Your task to perform on an android device: change your default location settings in chrome Image 0: 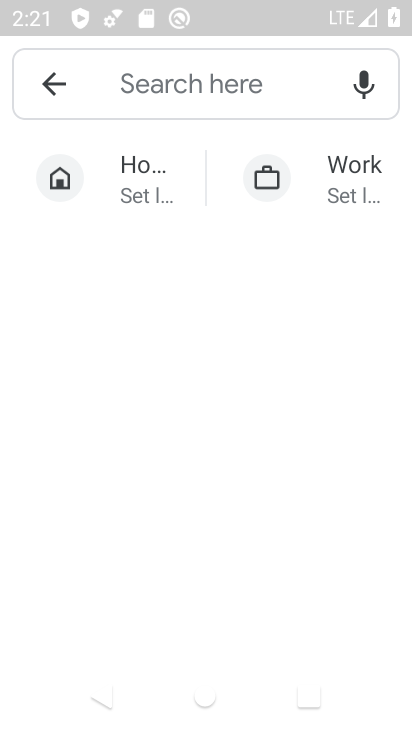
Step 0: press home button
Your task to perform on an android device: change your default location settings in chrome Image 1: 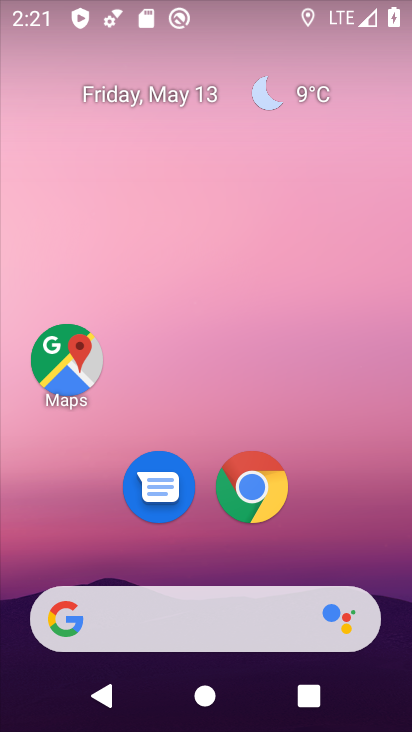
Step 1: drag from (213, 549) to (212, 105)
Your task to perform on an android device: change your default location settings in chrome Image 2: 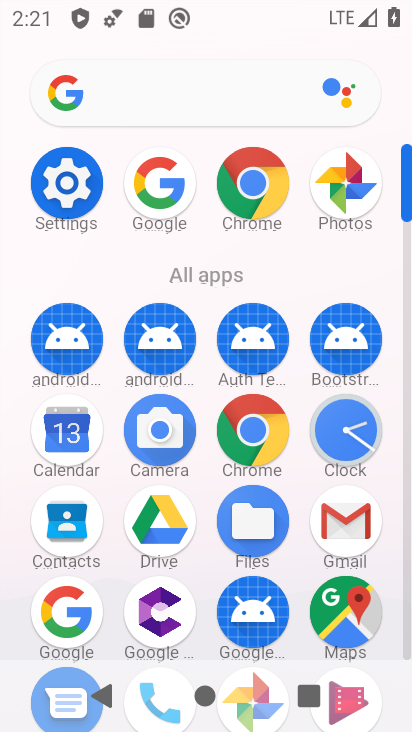
Step 2: click (253, 178)
Your task to perform on an android device: change your default location settings in chrome Image 3: 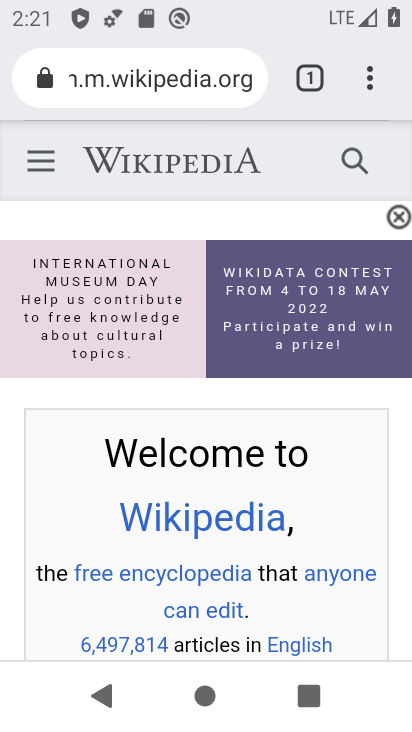
Step 3: click (360, 84)
Your task to perform on an android device: change your default location settings in chrome Image 4: 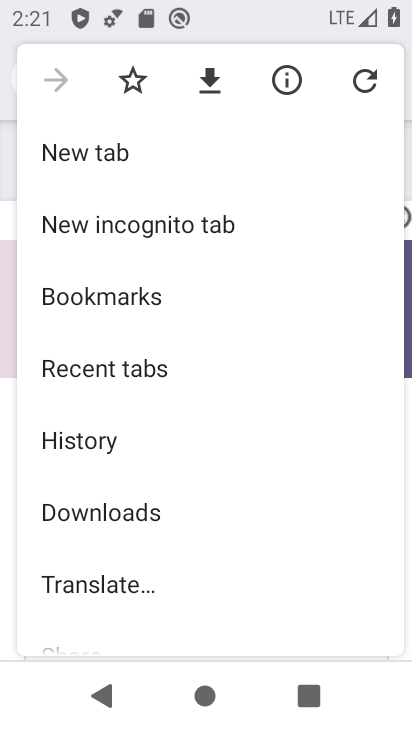
Step 4: drag from (263, 557) to (239, 184)
Your task to perform on an android device: change your default location settings in chrome Image 5: 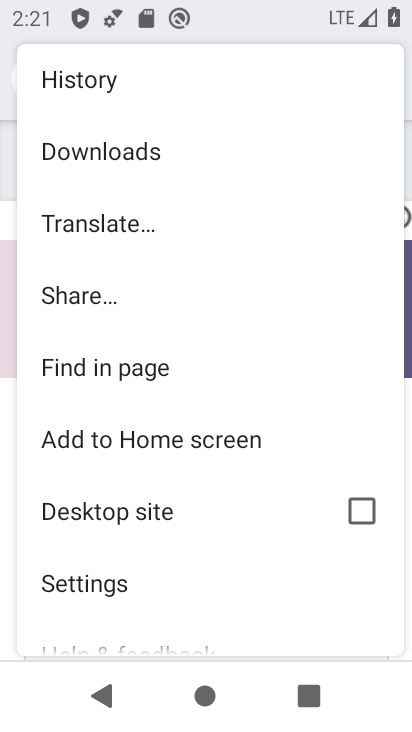
Step 5: click (89, 581)
Your task to perform on an android device: change your default location settings in chrome Image 6: 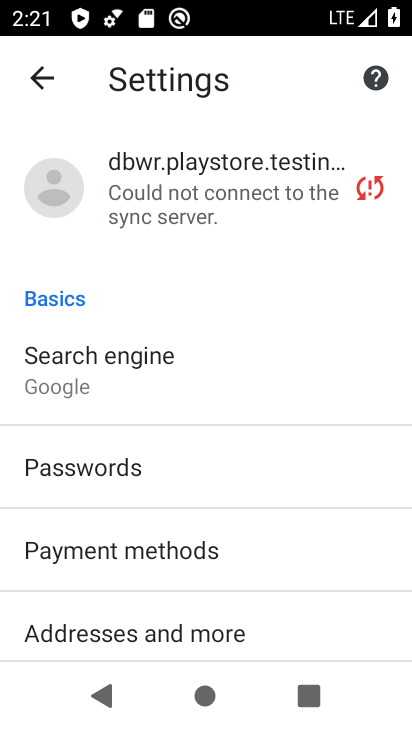
Step 6: click (131, 372)
Your task to perform on an android device: change your default location settings in chrome Image 7: 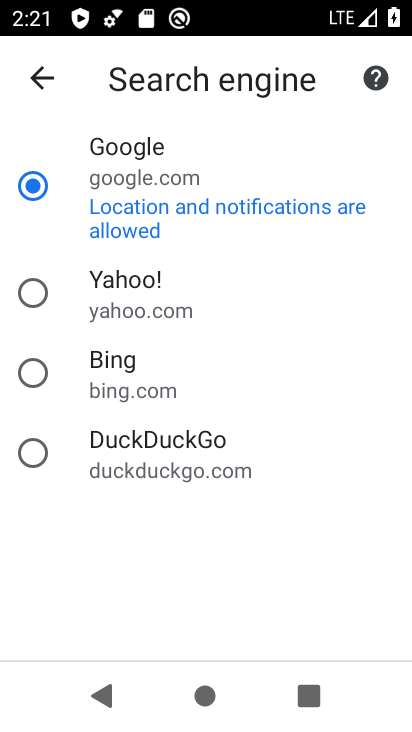
Step 7: click (27, 294)
Your task to perform on an android device: change your default location settings in chrome Image 8: 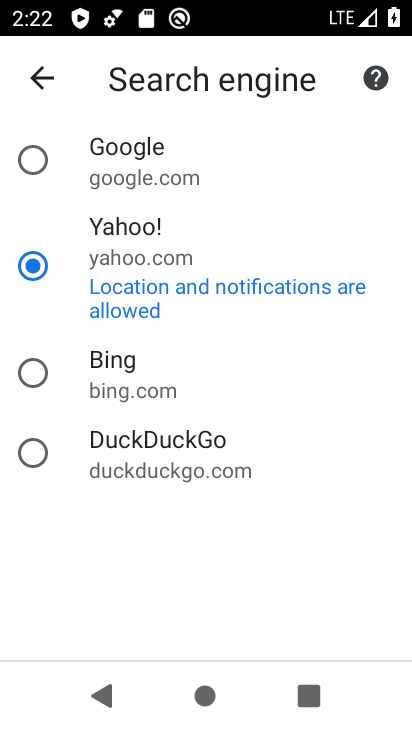
Step 8: task complete